Your task to perform on an android device: check data usage Image 0: 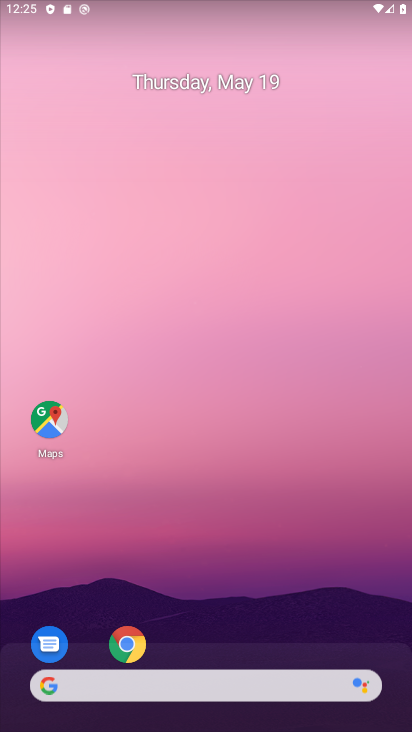
Step 0: drag from (364, 447) to (342, 190)
Your task to perform on an android device: check data usage Image 1: 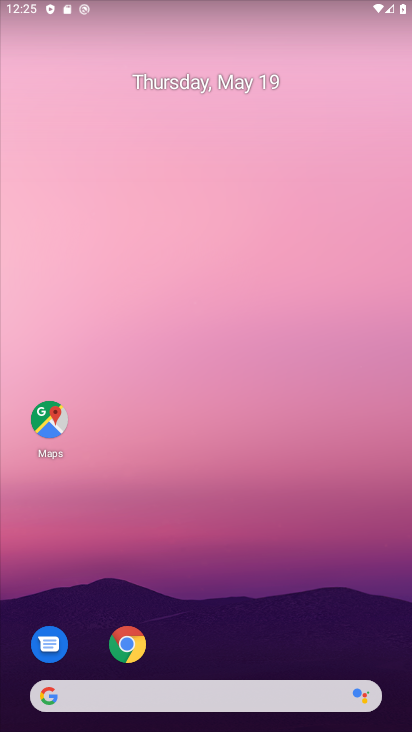
Step 1: drag from (387, 671) to (312, 276)
Your task to perform on an android device: check data usage Image 2: 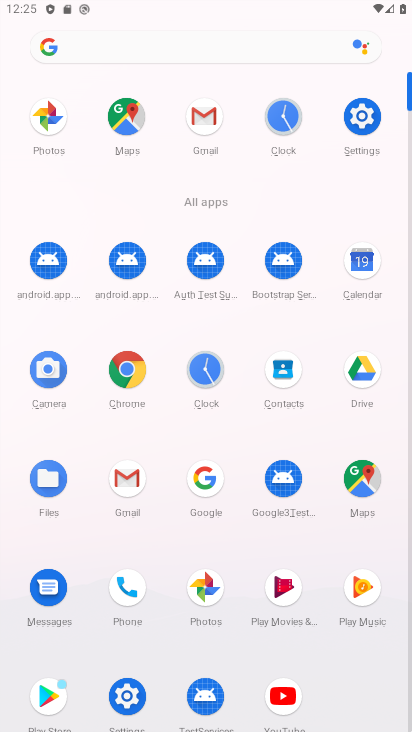
Step 2: click (124, 696)
Your task to perform on an android device: check data usage Image 3: 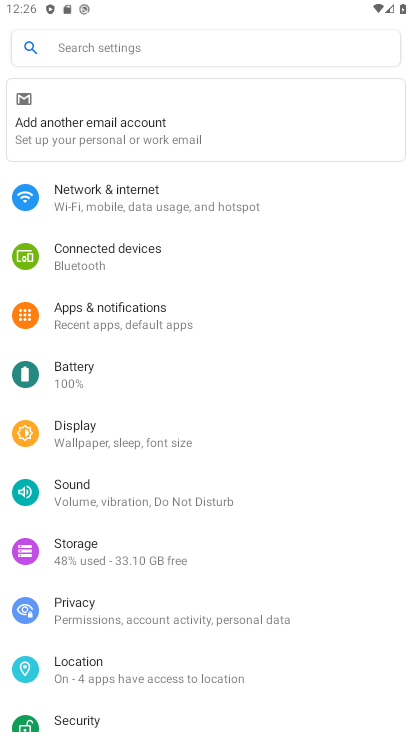
Step 3: click (127, 193)
Your task to perform on an android device: check data usage Image 4: 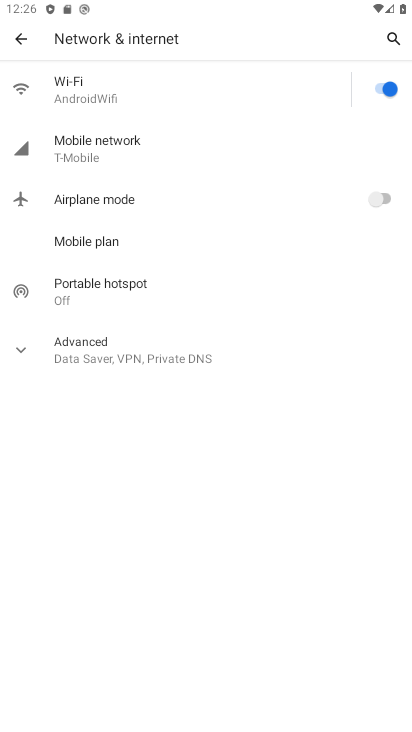
Step 4: click (97, 141)
Your task to perform on an android device: check data usage Image 5: 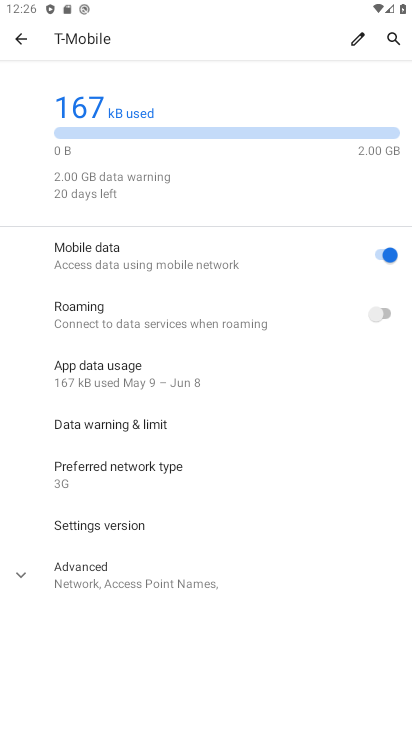
Step 5: task complete